Your task to perform on an android device: turn pop-ups off in chrome Image 0: 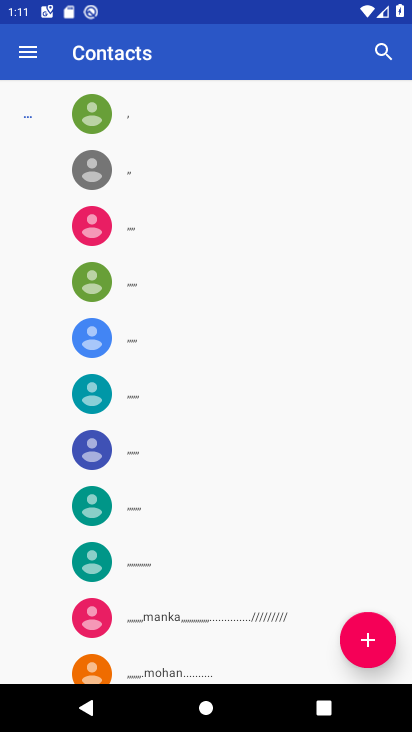
Step 0: press home button
Your task to perform on an android device: turn pop-ups off in chrome Image 1: 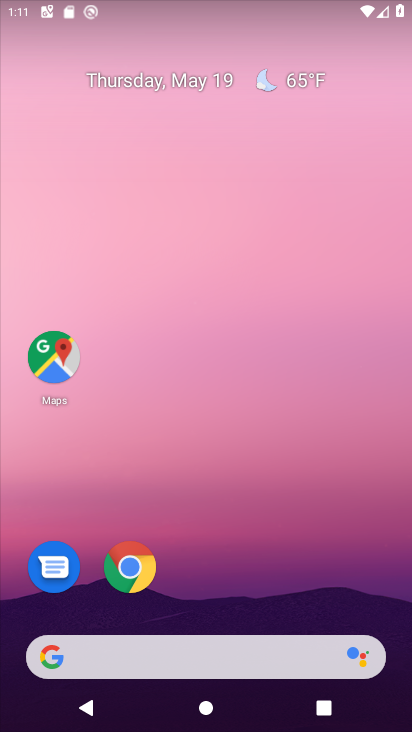
Step 1: click (125, 570)
Your task to perform on an android device: turn pop-ups off in chrome Image 2: 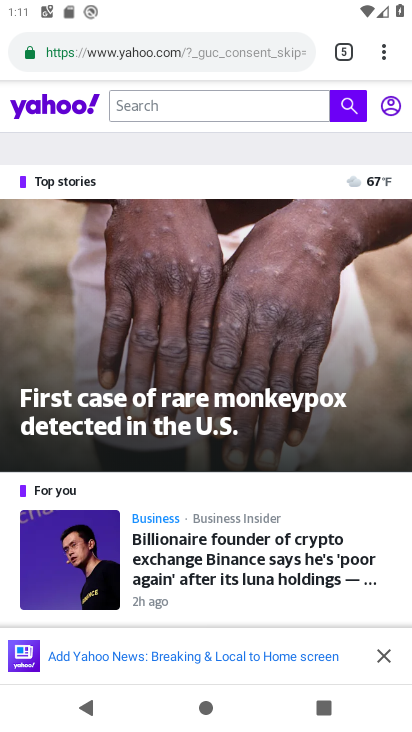
Step 2: click (379, 45)
Your task to perform on an android device: turn pop-ups off in chrome Image 3: 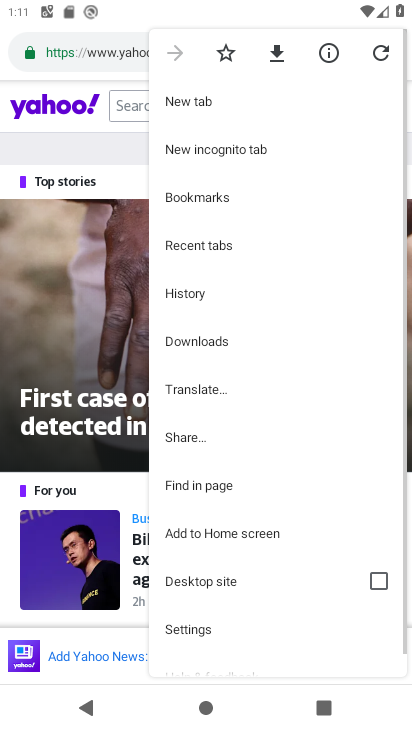
Step 3: drag from (264, 519) to (313, 166)
Your task to perform on an android device: turn pop-ups off in chrome Image 4: 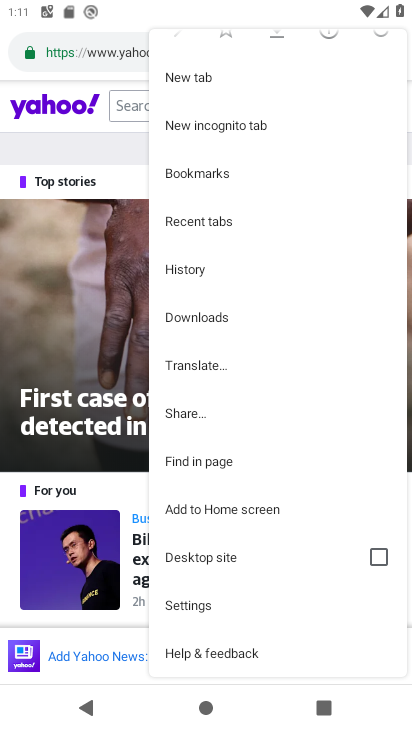
Step 4: click (305, 606)
Your task to perform on an android device: turn pop-ups off in chrome Image 5: 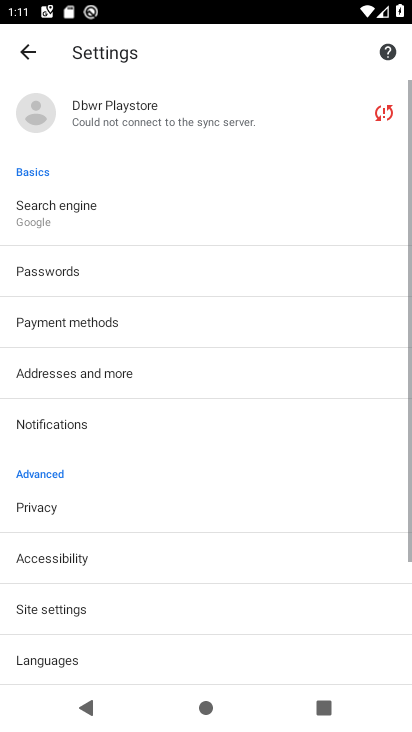
Step 5: drag from (204, 556) to (258, 206)
Your task to perform on an android device: turn pop-ups off in chrome Image 6: 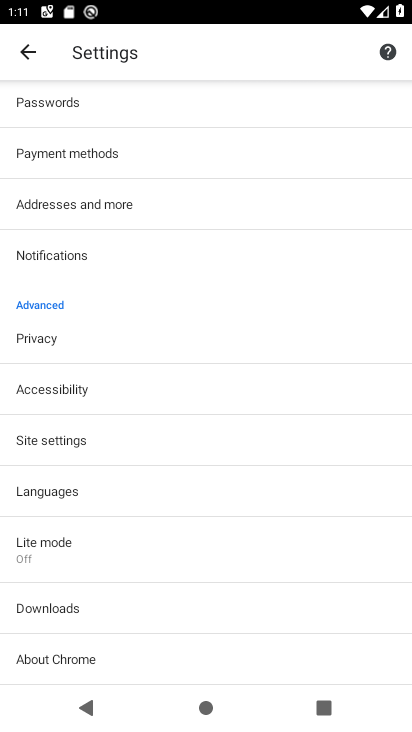
Step 6: click (248, 439)
Your task to perform on an android device: turn pop-ups off in chrome Image 7: 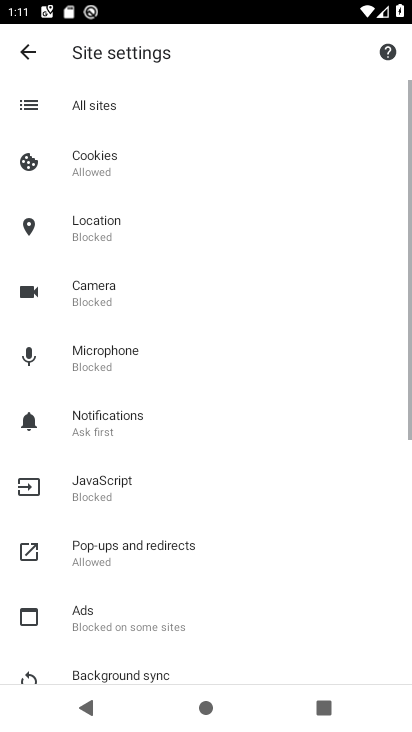
Step 7: drag from (233, 523) to (256, 199)
Your task to perform on an android device: turn pop-ups off in chrome Image 8: 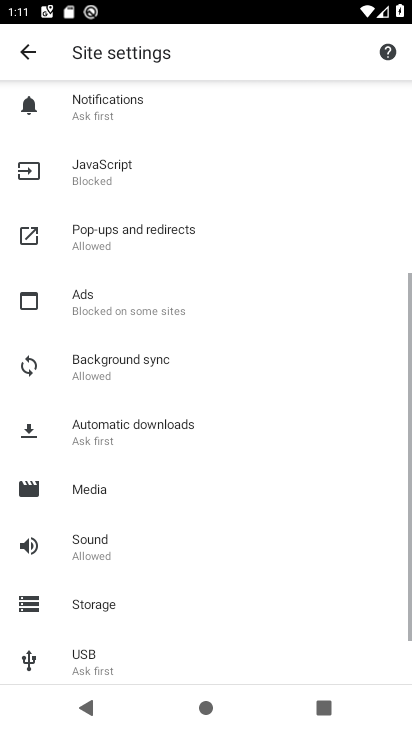
Step 8: click (158, 232)
Your task to perform on an android device: turn pop-ups off in chrome Image 9: 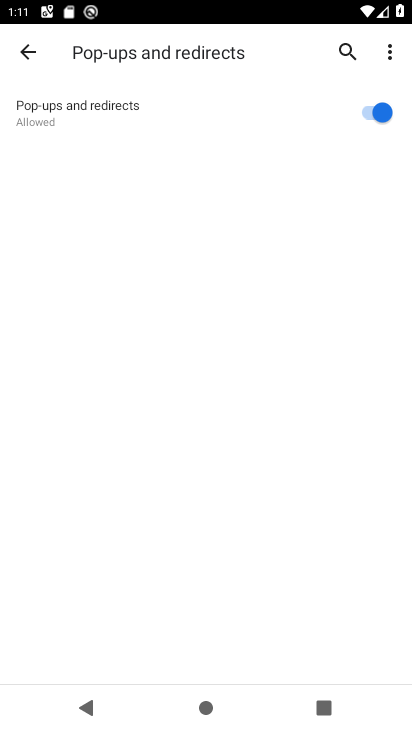
Step 9: click (371, 103)
Your task to perform on an android device: turn pop-ups off in chrome Image 10: 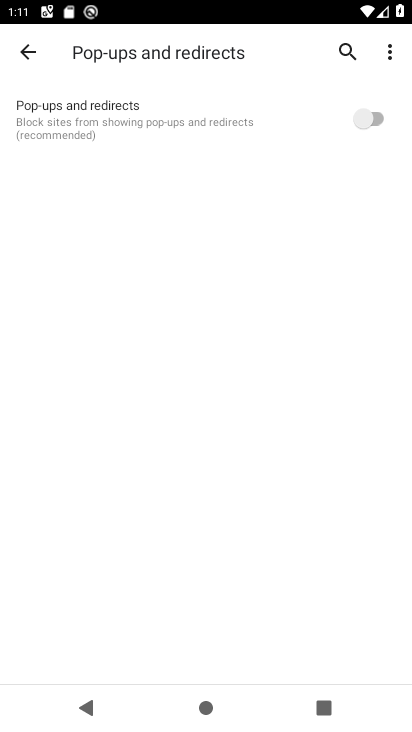
Step 10: task complete